Your task to perform on an android device: find which apps use the phone's location Image 0: 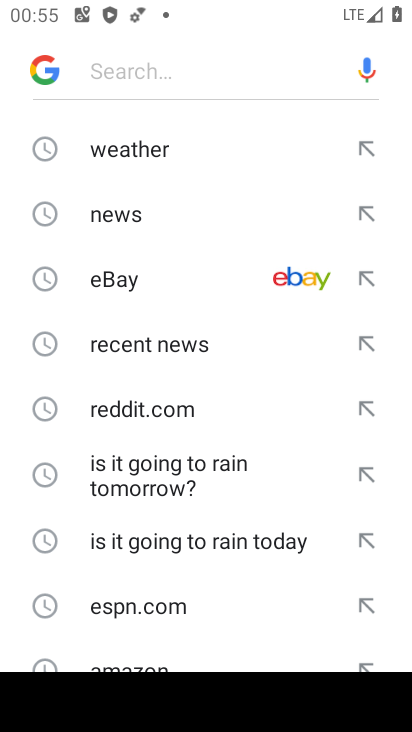
Step 0: press back button
Your task to perform on an android device: find which apps use the phone's location Image 1: 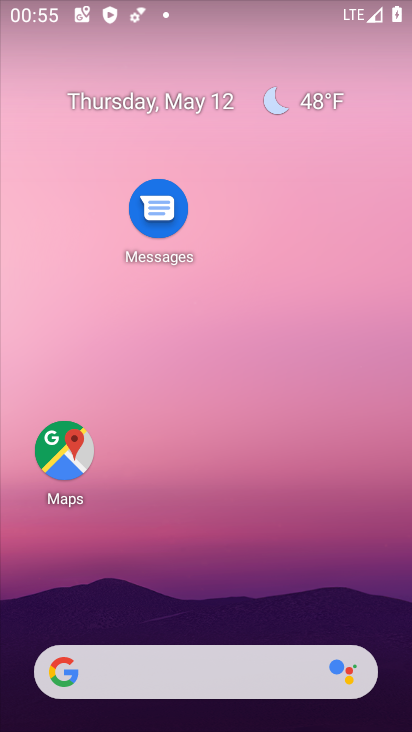
Step 1: drag from (219, 630) to (249, 29)
Your task to perform on an android device: find which apps use the phone's location Image 2: 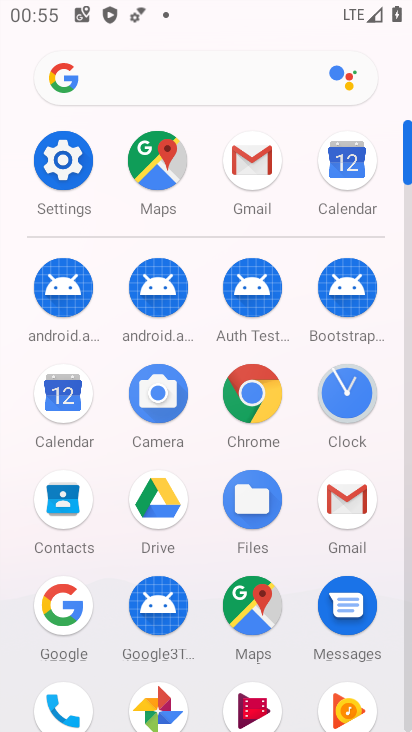
Step 2: click (66, 186)
Your task to perform on an android device: find which apps use the phone's location Image 3: 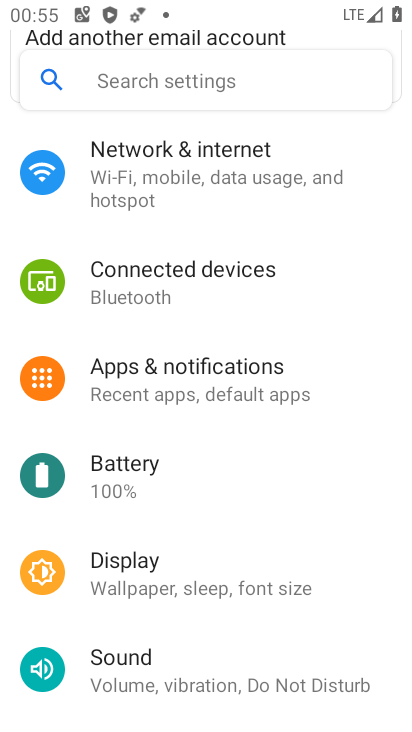
Step 3: drag from (190, 594) to (143, 156)
Your task to perform on an android device: find which apps use the phone's location Image 4: 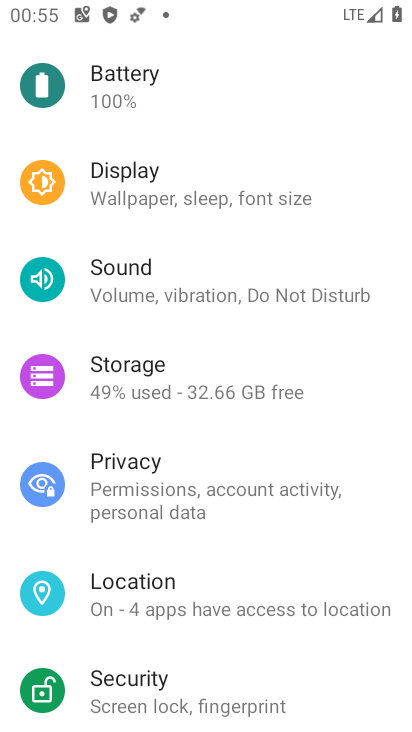
Step 4: click (148, 584)
Your task to perform on an android device: find which apps use the phone's location Image 5: 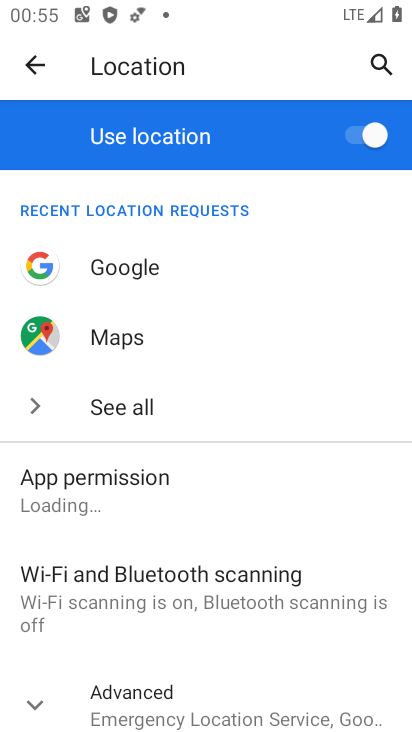
Step 5: click (142, 497)
Your task to perform on an android device: find which apps use the phone's location Image 6: 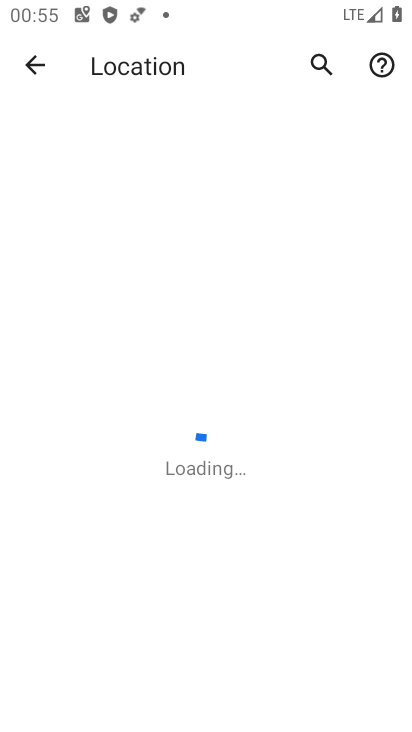
Step 6: task complete